Your task to perform on an android device: refresh tabs in the chrome app Image 0: 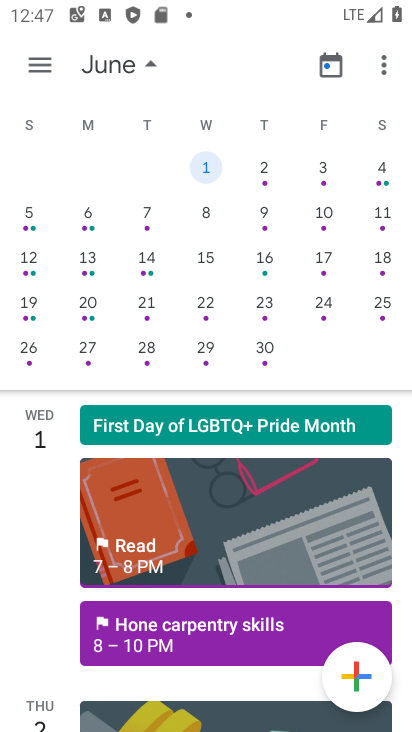
Step 0: press home button
Your task to perform on an android device: refresh tabs in the chrome app Image 1: 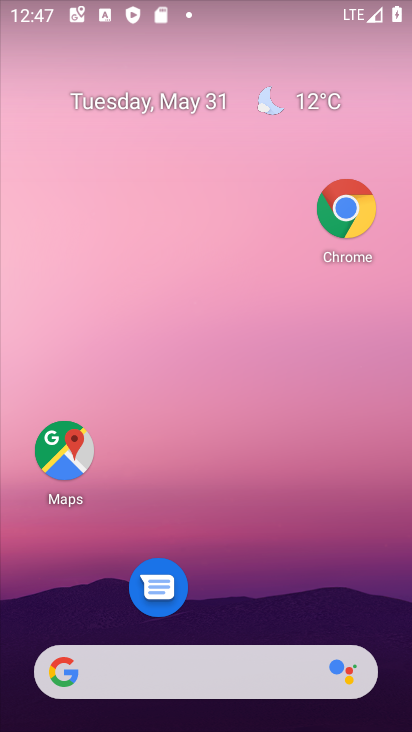
Step 1: click (345, 205)
Your task to perform on an android device: refresh tabs in the chrome app Image 2: 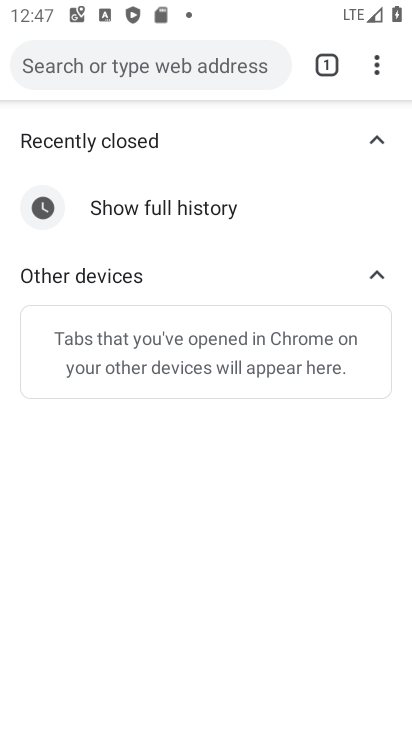
Step 2: click (381, 61)
Your task to perform on an android device: refresh tabs in the chrome app Image 3: 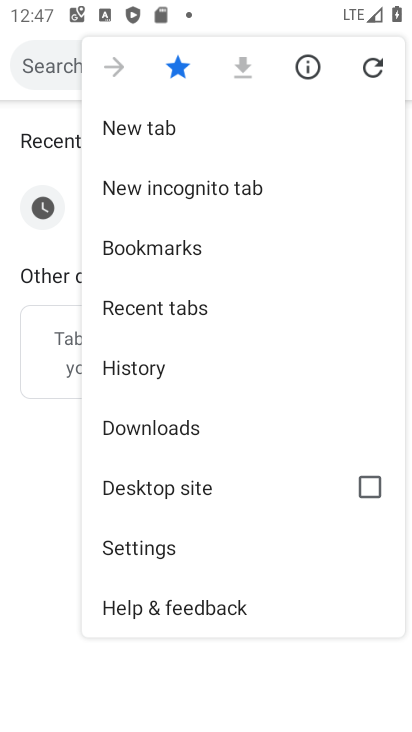
Step 3: click (381, 61)
Your task to perform on an android device: refresh tabs in the chrome app Image 4: 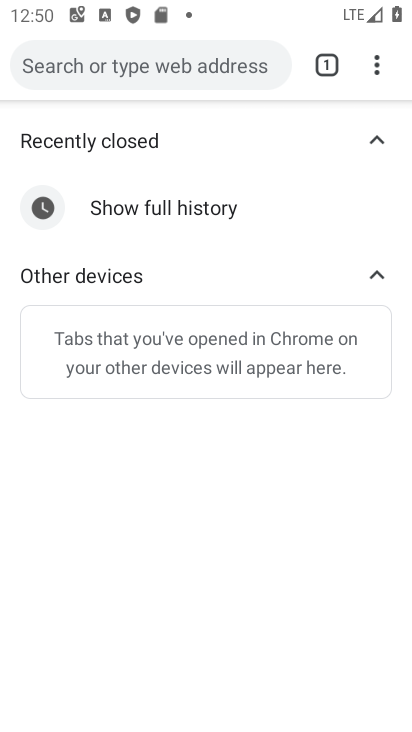
Step 4: click (383, 71)
Your task to perform on an android device: refresh tabs in the chrome app Image 5: 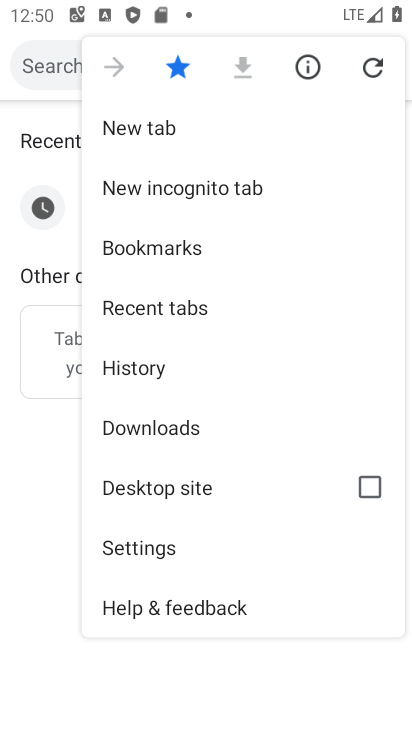
Step 5: click (352, 64)
Your task to perform on an android device: refresh tabs in the chrome app Image 6: 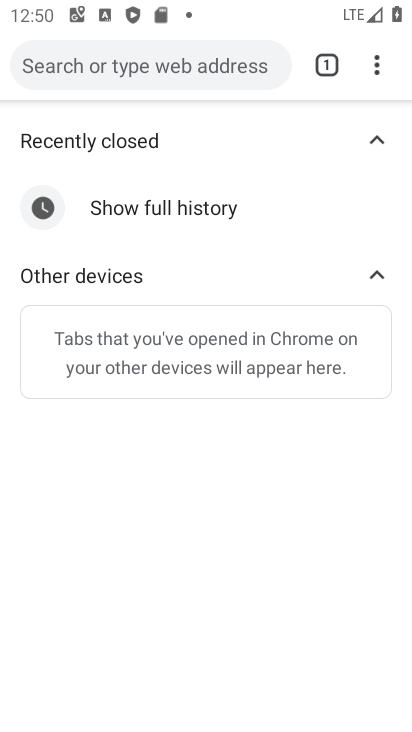
Step 6: click (358, 68)
Your task to perform on an android device: refresh tabs in the chrome app Image 7: 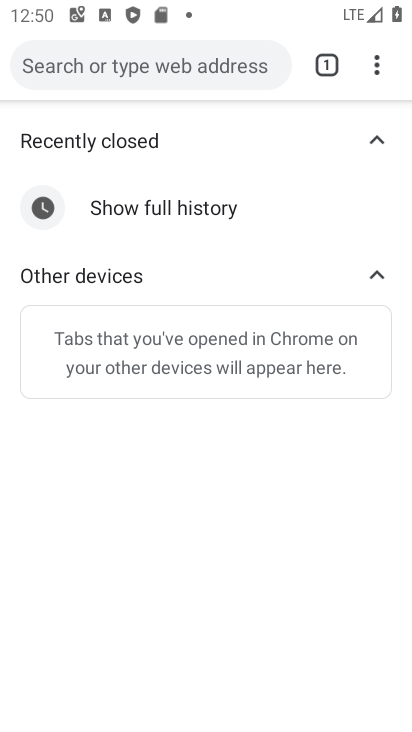
Step 7: click (358, 68)
Your task to perform on an android device: refresh tabs in the chrome app Image 8: 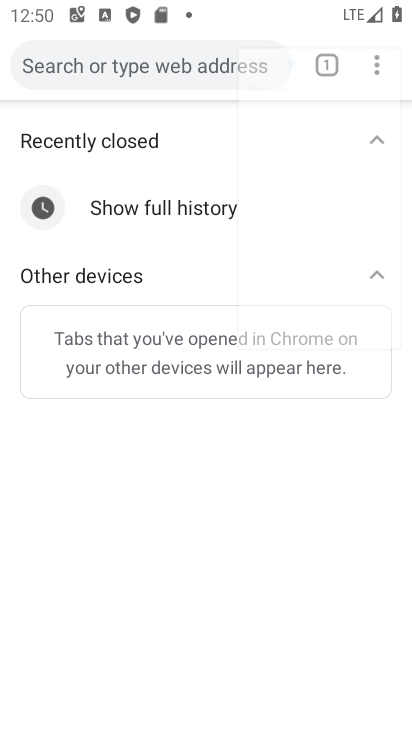
Step 8: click (358, 68)
Your task to perform on an android device: refresh tabs in the chrome app Image 9: 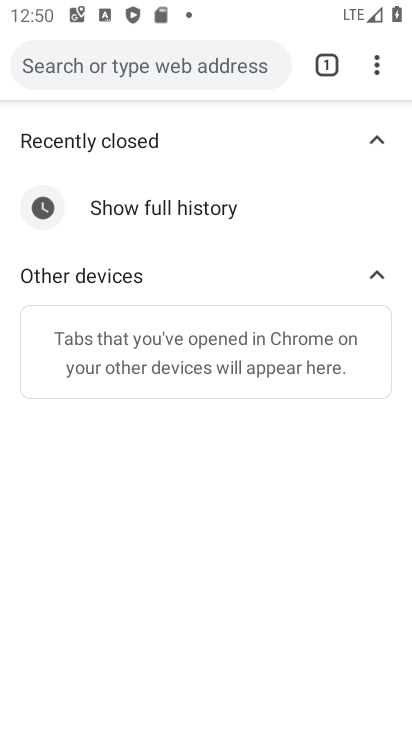
Step 9: task complete